Your task to perform on an android device: Open wifi settings Image 0: 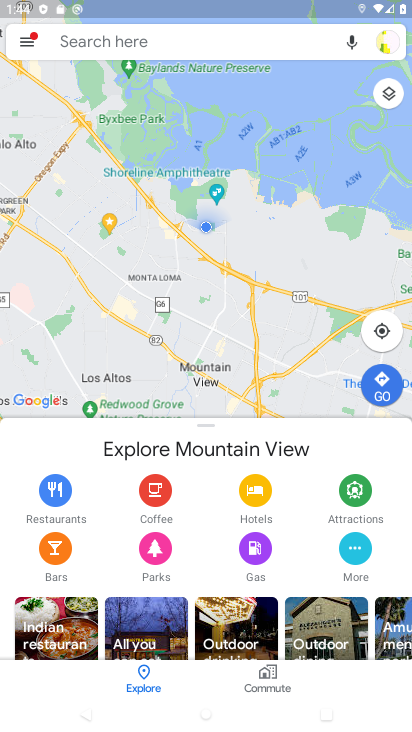
Step 0: press home button
Your task to perform on an android device: Open wifi settings Image 1: 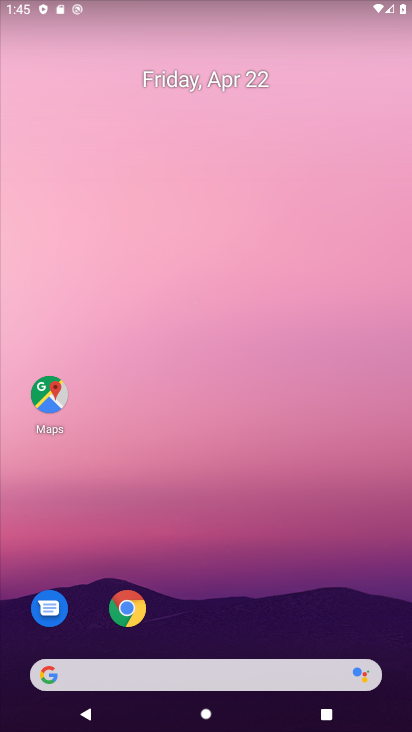
Step 1: drag from (300, 535) to (297, 68)
Your task to perform on an android device: Open wifi settings Image 2: 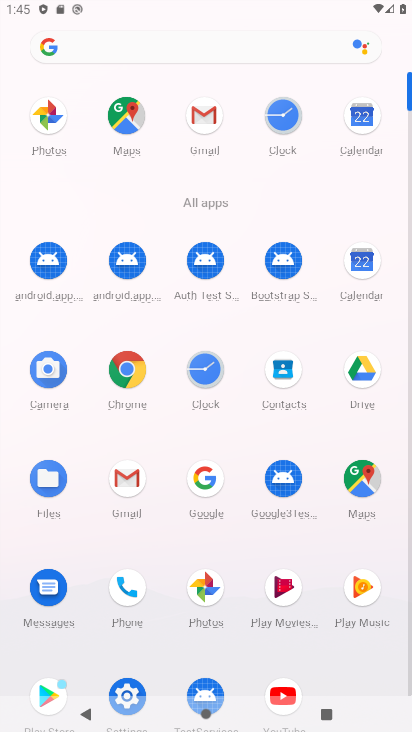
Step 2: click (124, 688)
Your task to perform on an android device: Open wifi settings Image 3: 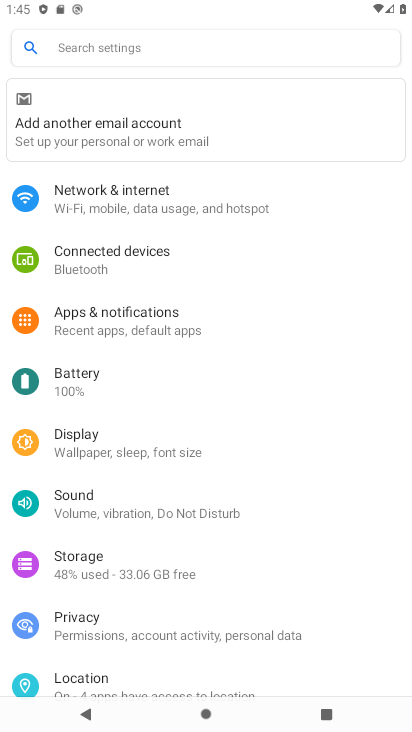
Step 3: click (168, 205)
Your task to perform on an android device: Open wifi settings Image 4: 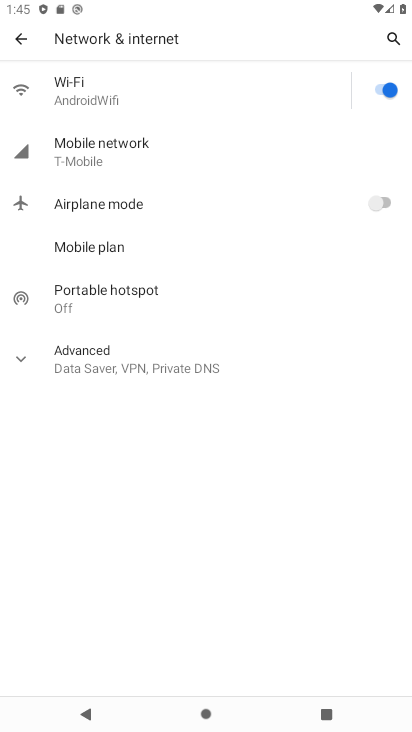
Step 4: click (126, 98)
Your task to perform on an android device: Open wifi settings Image 5: 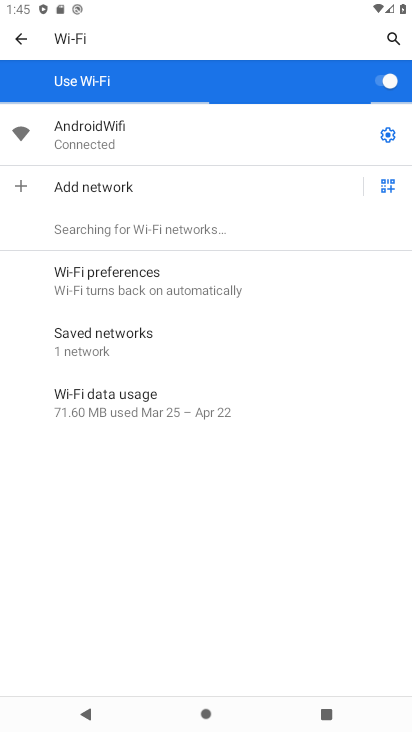
Step 5: task complete